Your task to perform on an android device: Open calendar and show me the fourth week of next month Image 0: 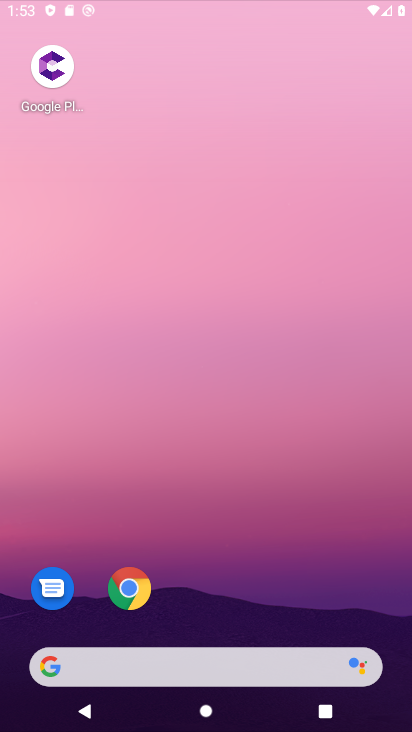
Step 0: click (300, 170)
Your task to perform on an android device: Open calendar and show me the fourth week of next month Image 1: 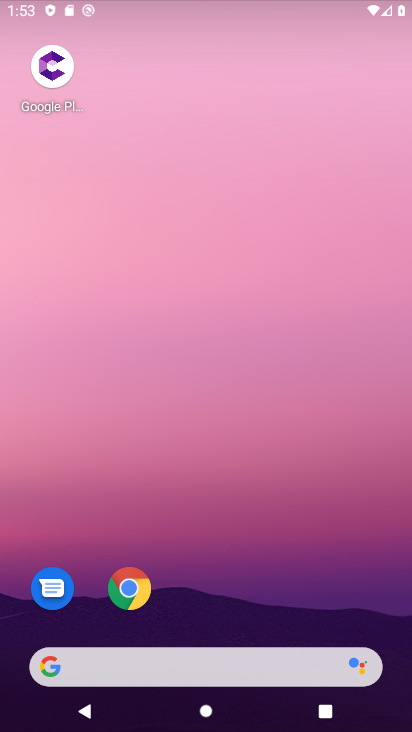
Step 1: drag from (210, 526) to (252, 210)
Your task to perform on an android device: Open calendar and show me the fourth week of next month Image 2: 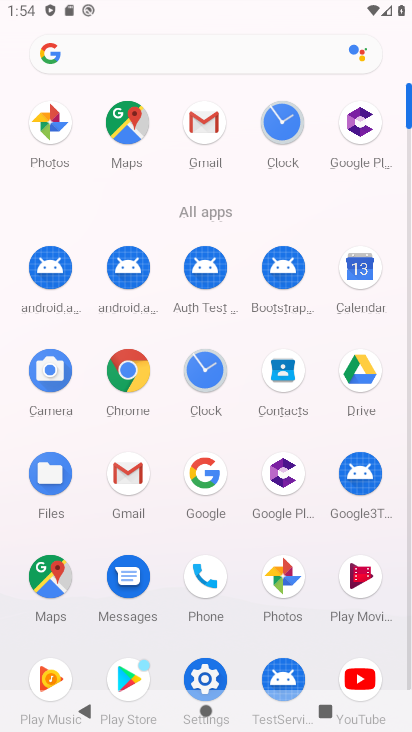
Step 2: click (353, 273)
Your task to perform on an android device: Open calendar and show me the fourth week of next month Image 3: 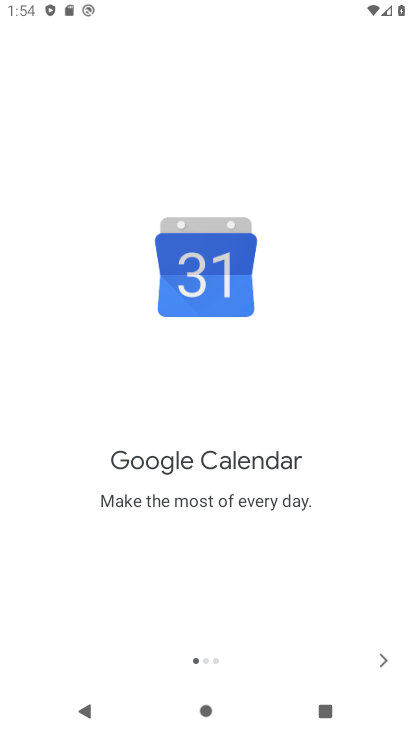
Step 3: drag from (155, 448) to (280, 18)
Your task to perform on an android device: Open calendar and show me the fourth week of next month Image 4: 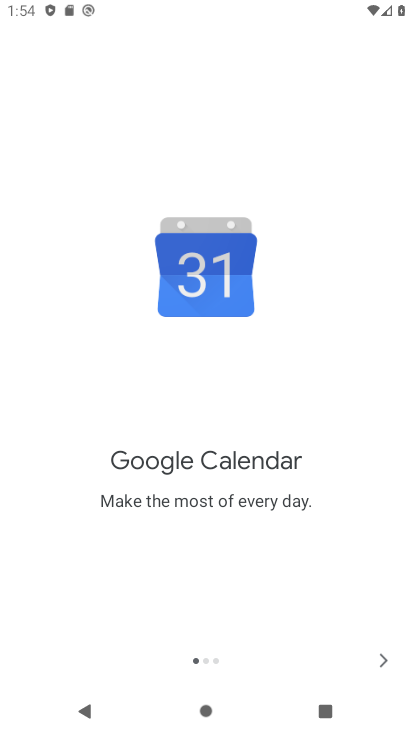
Step 4: click (370, 657)
Your task to perform on an android device: Open calendar and show me the fourth week of next month Image 5: 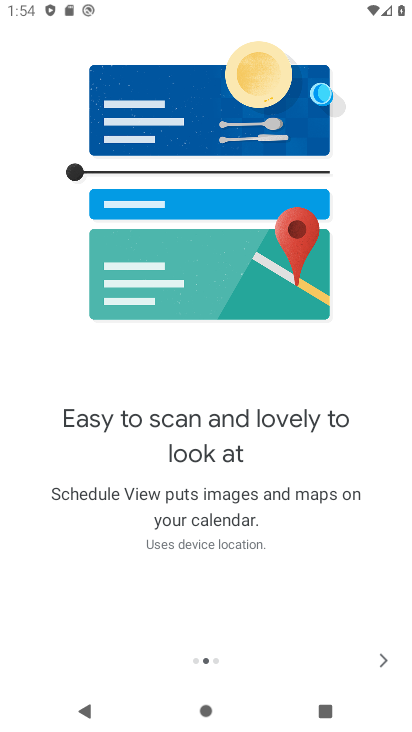
Step 5: click (372, 650)
Your task to perform on an android device: Open calendar and show me the fourth week of next month Image 6: 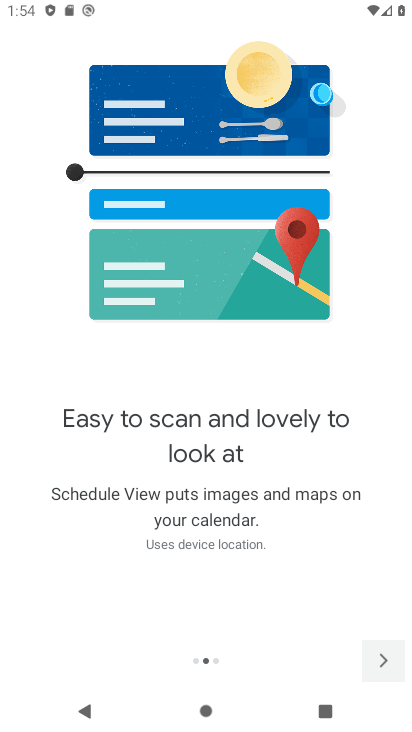
Step 6: click (372, 650)
Your task to perform on an android device: Open calendar and show me the fourth week of next month Image 7: 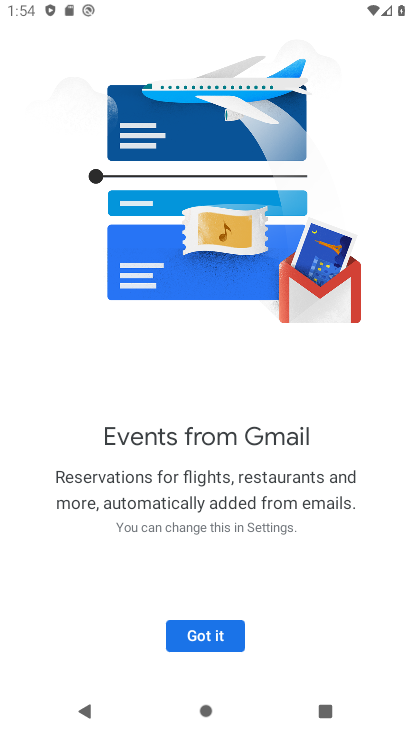
Step 7: click (168, 643)
Your task to perform on an android device: Open calendar and show me the fourth week of next month Image 8: 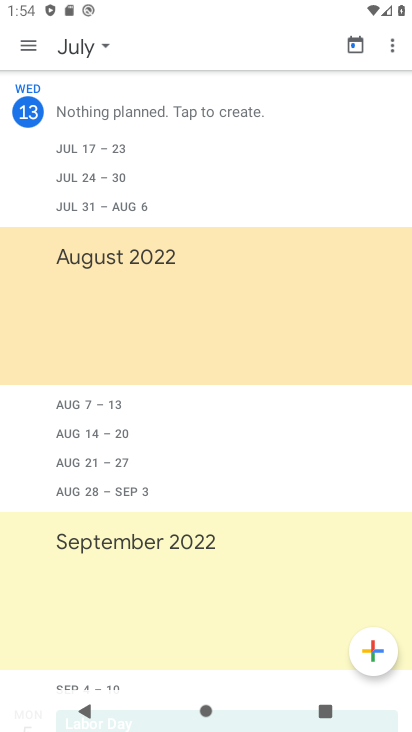
Step 8: click (81, 48)
Your task to perform on an android device: Open calendar and show me the fourth week of next month Image 9: 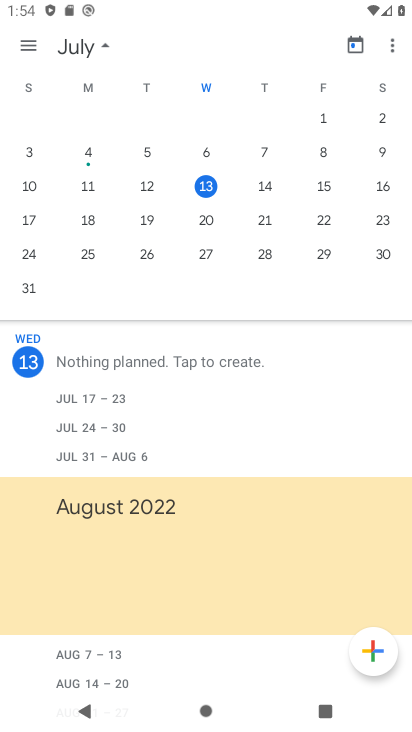
Step 9: drag from (356, 179) to (17, 309)
Your task to perform on an android device: Open calendar and show me the fourth week of next month Image 10: 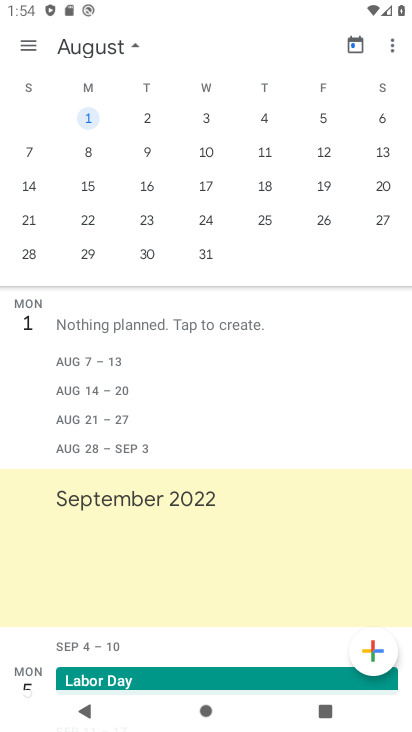
Step 10: click (266, 218)
Your task to perform on an android device: Open calendar and show me the fourth week of next month Image 11: 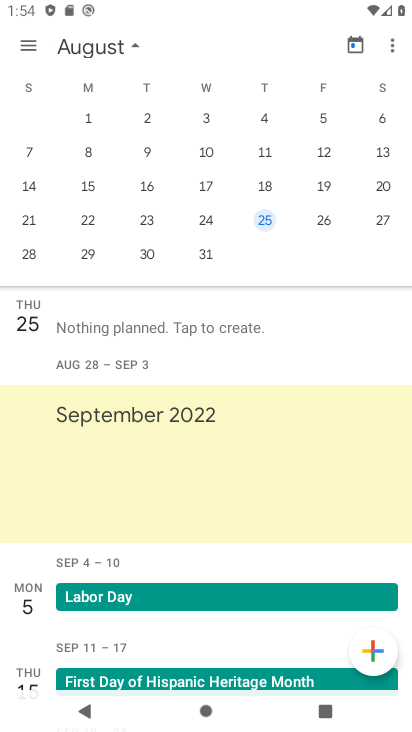
Step 11: click (147, 222)
Your task to perform on an android device: Open calendar and show me the fourth week of next month Image 12: 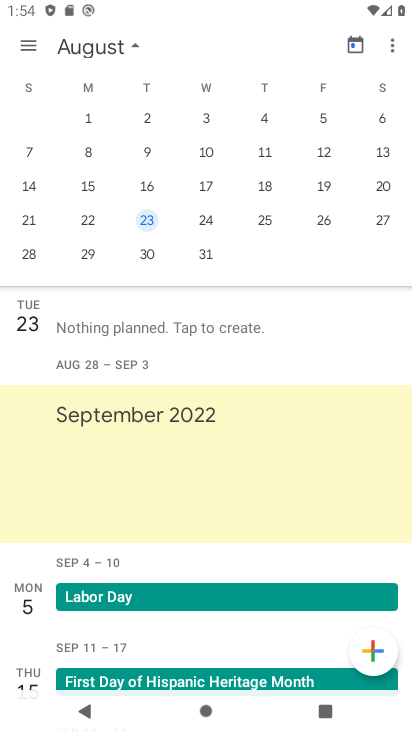
Step 12: task complete